Your task to perform on an android device: check out phone information Image 0: 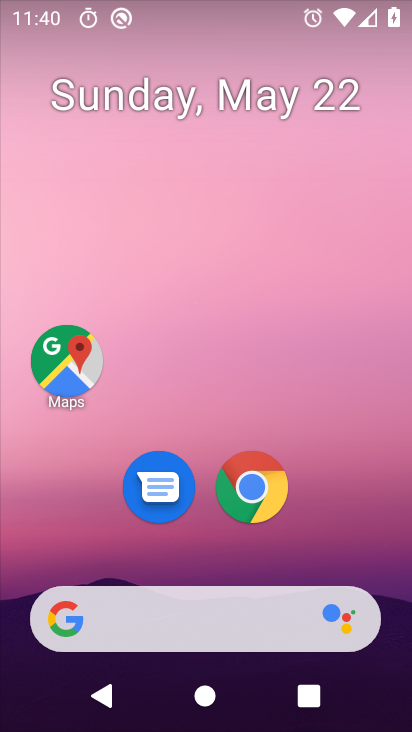
Step 0: press home button
Your task to perform on an android device: check out phone information Image 1: 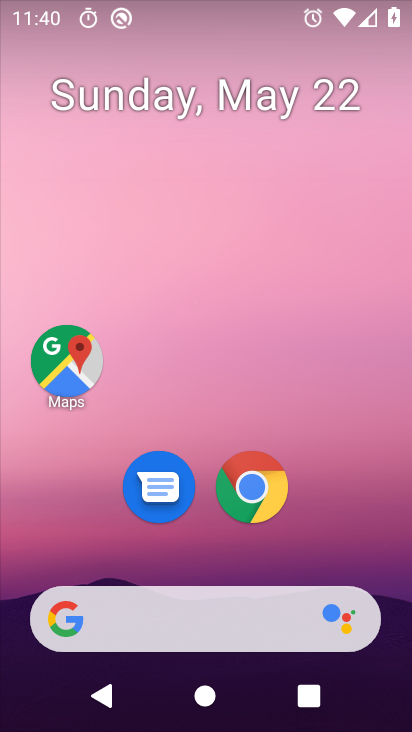
Step 1: drag from (356, 532) to (322, 214)
Your task to perform on an android device: check out phone information Image 2: 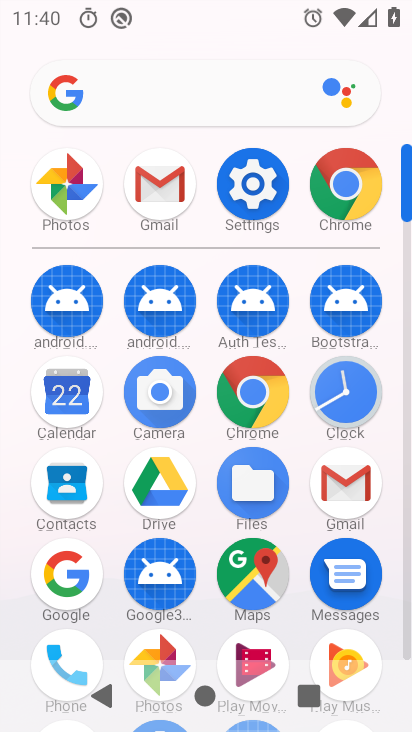
Step 2: click (76, 666)
Your task to perform on an android device: check out phone information Image 3: 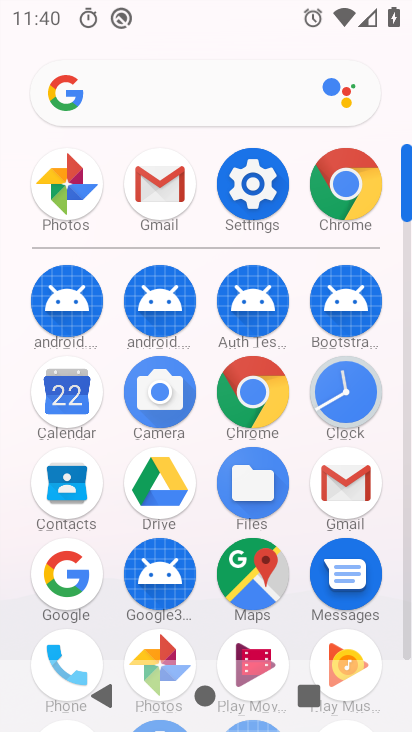
Step 3: click (75, 661)
Your task to perform on an android device: check out phone information Image 4: 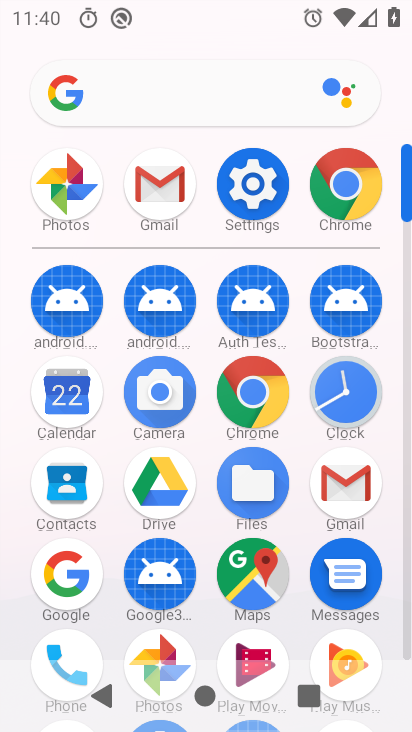
Step 4: drag from (102, 598) to (111, 337)
Your task to perform on an android device: check out phone information Image 5: 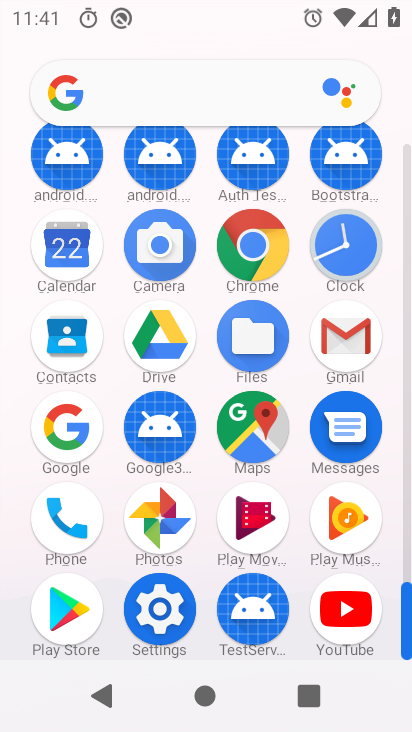
Step 5: click (77, 528)
Your task to perform on an android device: check out phone information Image 6: 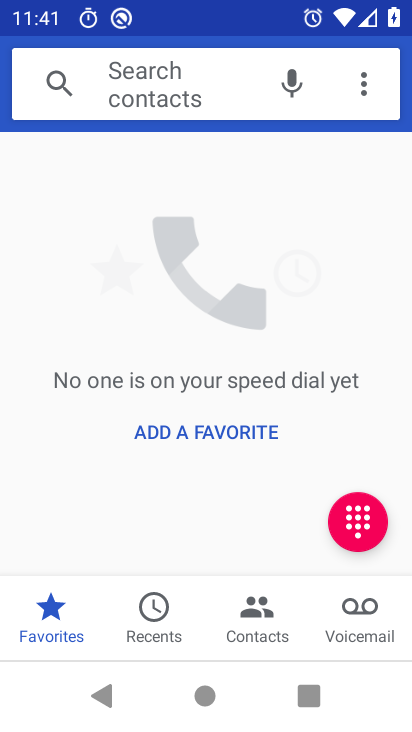
Step 6: task complete